Your task to perform on an android device: How much does a 3 bedroom apartment rent for in Philadelphia? Image 0: 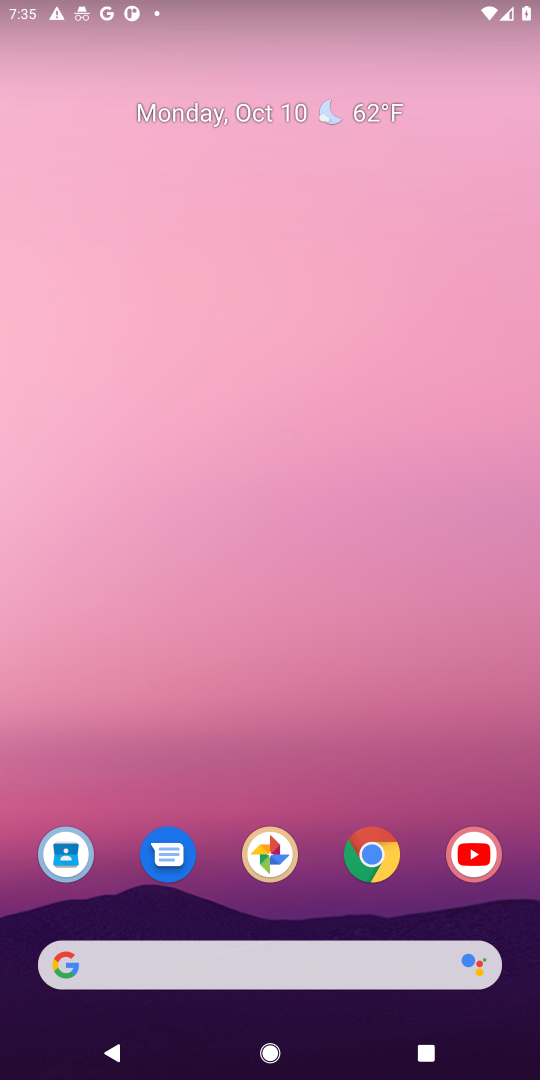
Step 0: click (366, 856)
Your task to perform on an android device: How much does a 3 bedroom apartment rent for in Philadelphia? Image 1: 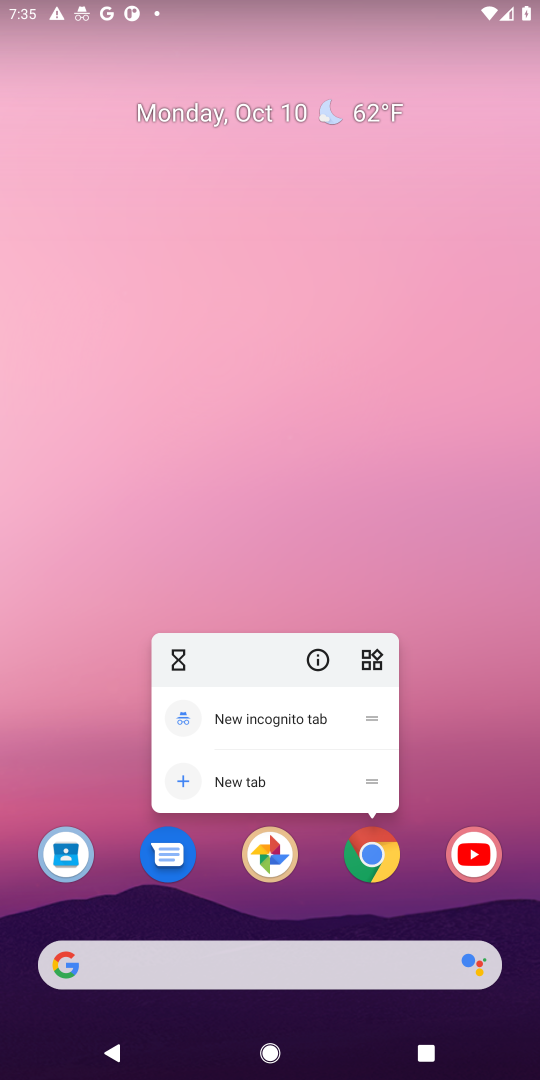
Step 1: click (366, 856)
Your task to perform on an android device: How much does a 3 bedroom apartment rent for in Philadelphia? Image 2: 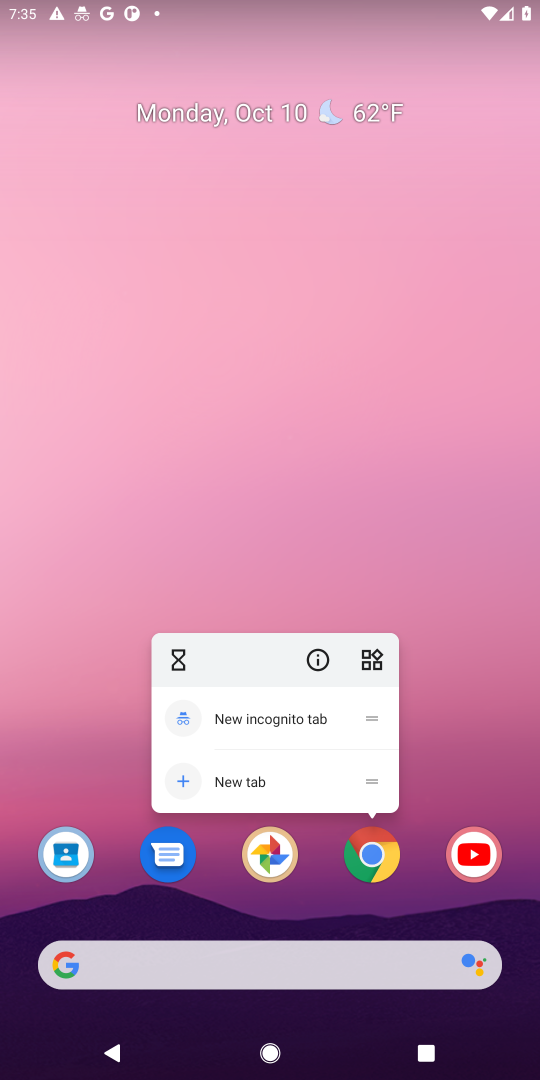
Step 2: click (372, 849)
Your task to perform on an android device: How much does a 3 bedroom apartment rent for in Philadelphia? Image 3: 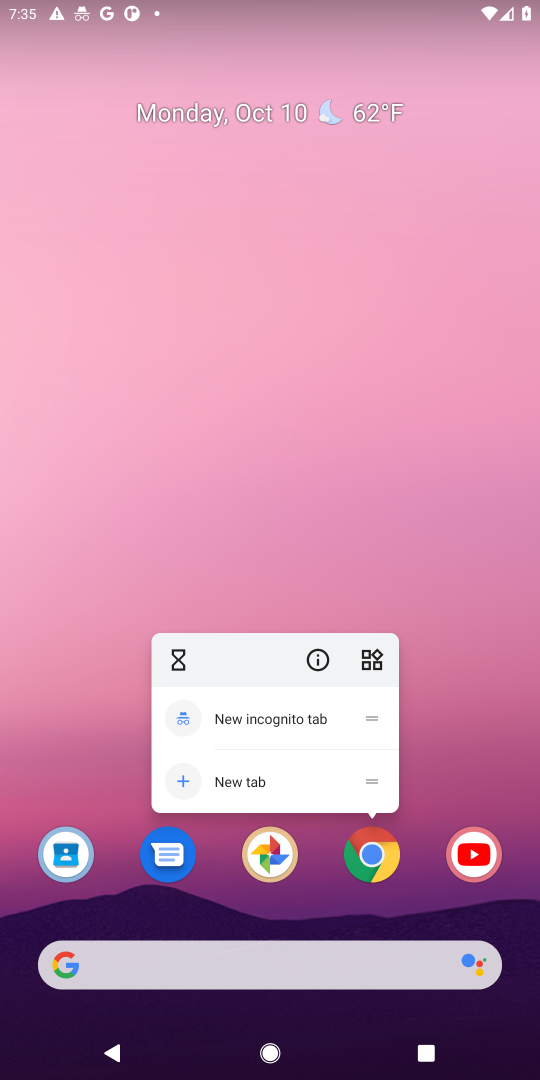
Step 3: click (372, 849)
Your task to perform on an android device: How much does a 3 bedroom apartment rent for in Philadelphia? Image 4: 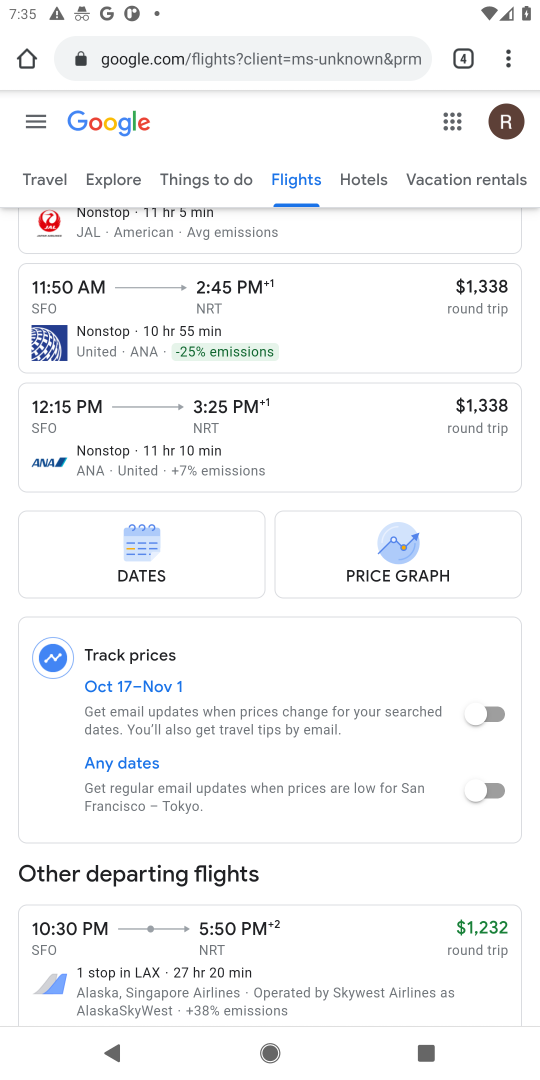
Step 4: click (290, 63)
Your task to perform on an android device: How much does a 3 bedroom apartment rent for in Philadelphia? Image 5: 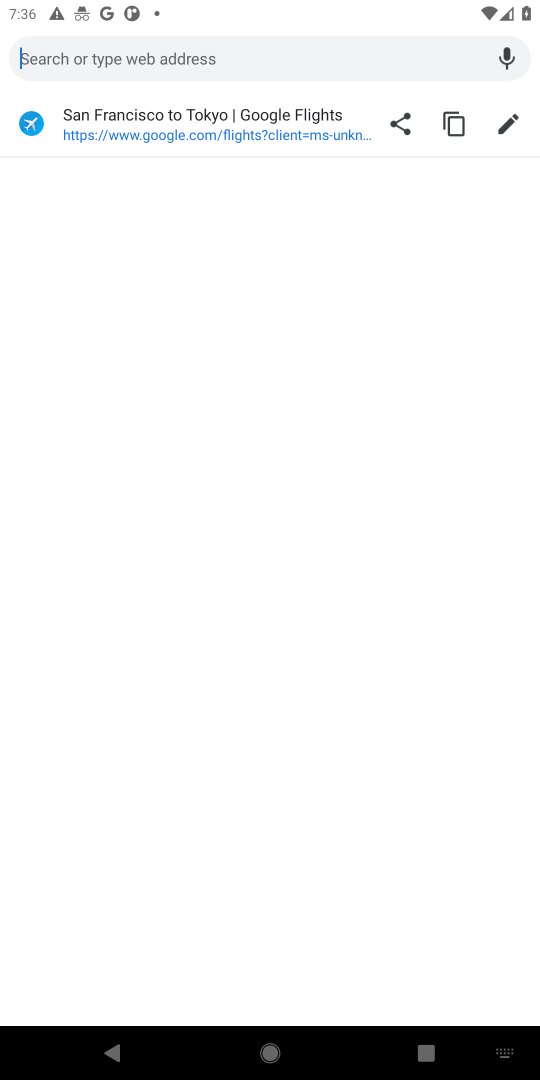
Step 5: type "3 bedroom apartment rent for in Philadelphia"
Your task to perform on an android device: How much does a 3 bedroom apartment rent for in Philadelphia? Image 6: 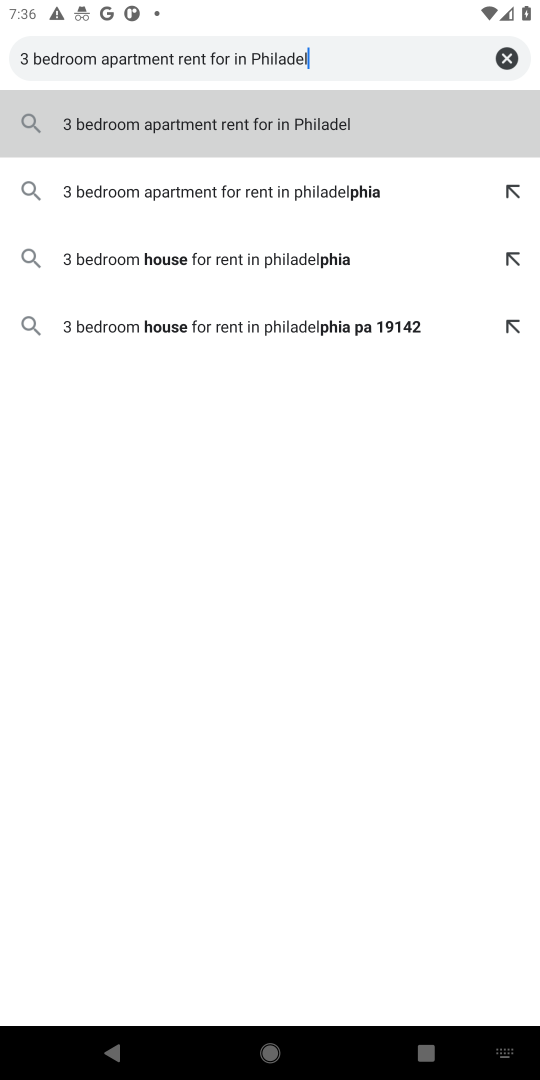
Step 6: click (232, 129)
Your task to perform on an android device: How much does a 3 bedroom apartment rent for in Philadelphia? Image 7: 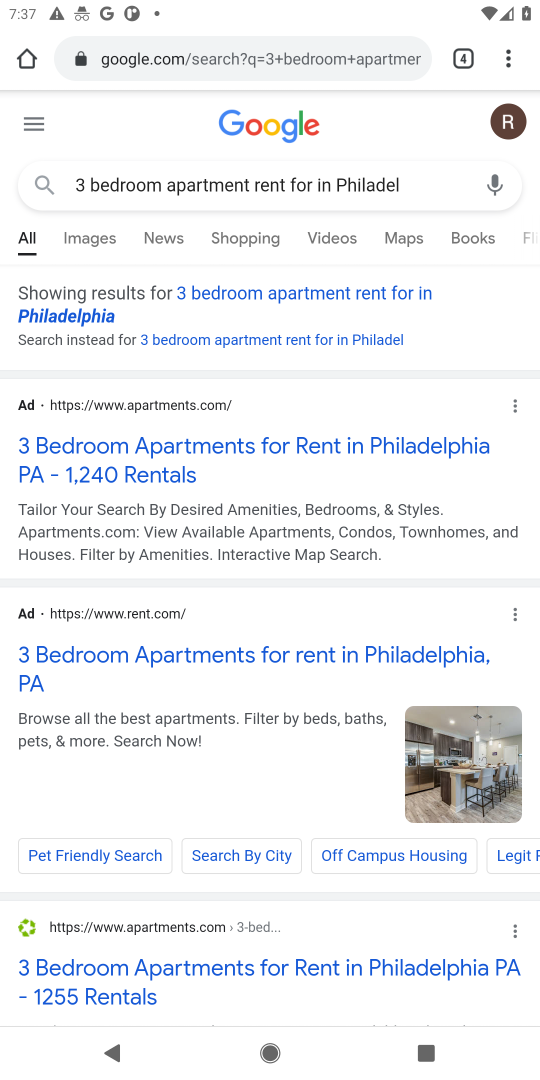
Step 7: click (99, 451)
Your task to perform on an android device: How much does a 3 bedroom apartment rent for in Philadelphia? Image 8: 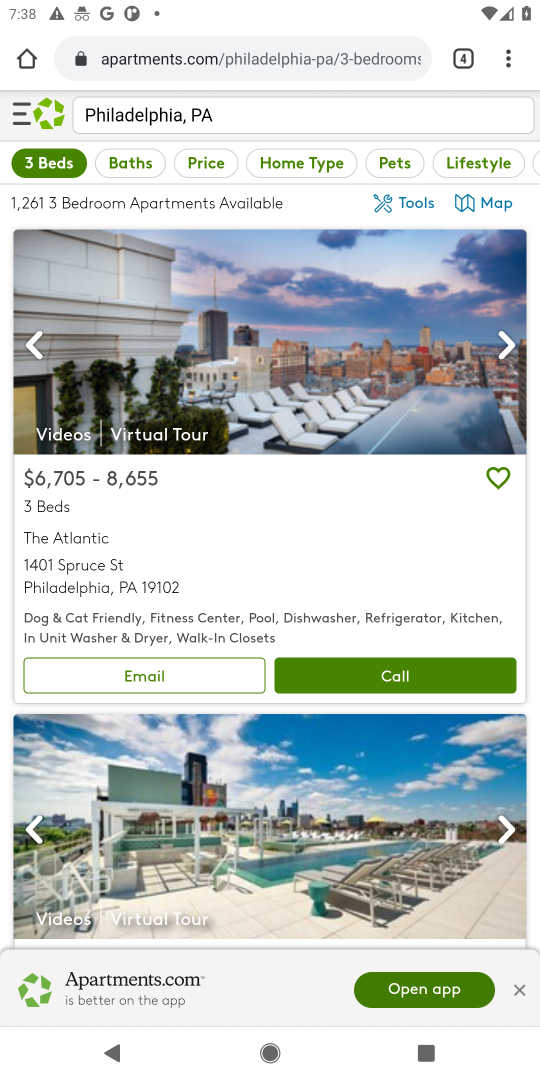
Step 8: task complete